Your task to perform on an android device: toggle notification dots Image 0: 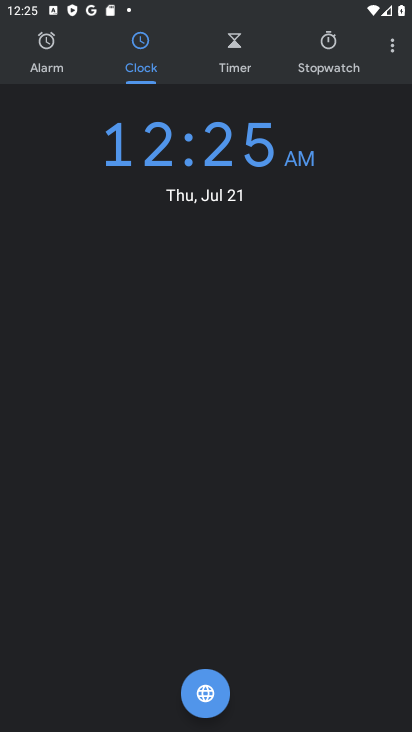
Step 0: press home button
Your task to perform on an android device: toggle notification dots Image 1: 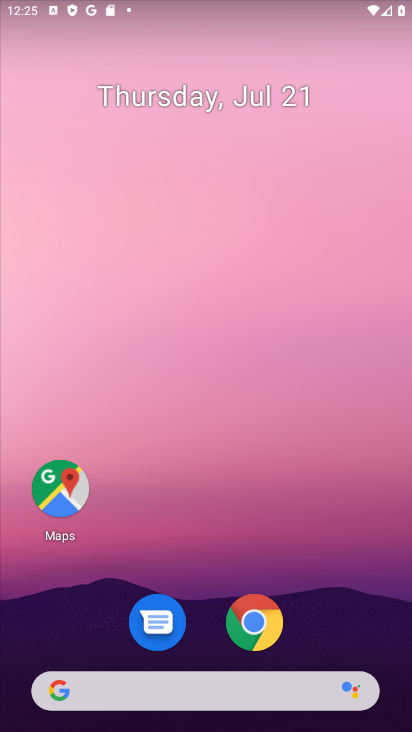
Step 1: drag from (256, 689) to (281, 211)
Your task to perform on an android device: toggle notification dots Image 2: 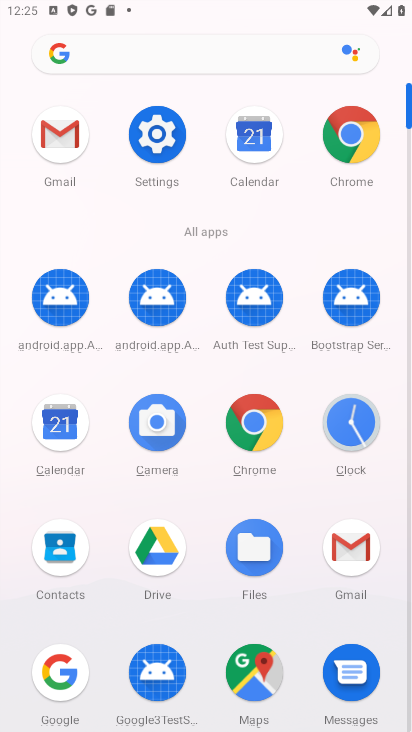
Step 2: drag from (206, 512) to (227, 369)
Your task to perform on an android device: toggle notification dots Image 3: 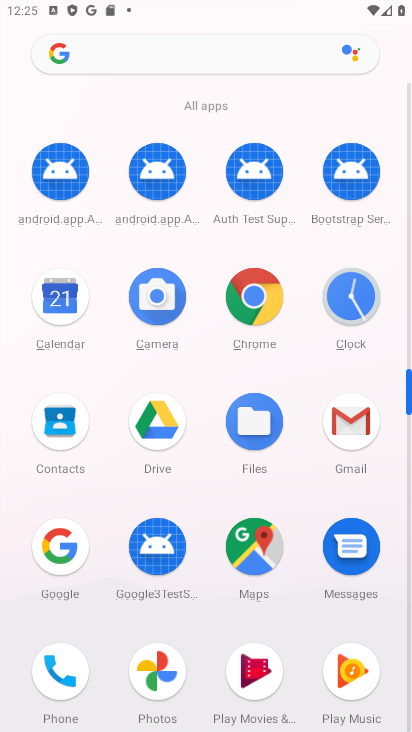
Step 3: drag from (203, 511) to (272, 374)
Your task to perform on an android device: toggle notification dots Image 4: 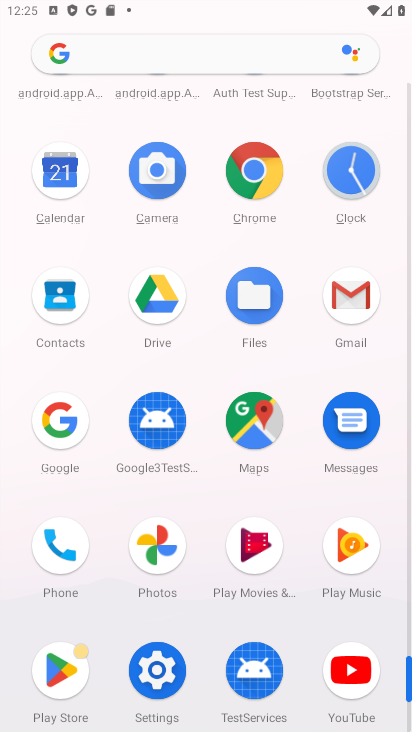
Step 4: drag from (164, 655) to (319, 597)
Your task to perform on an android device: toggle notification dots Image 5: 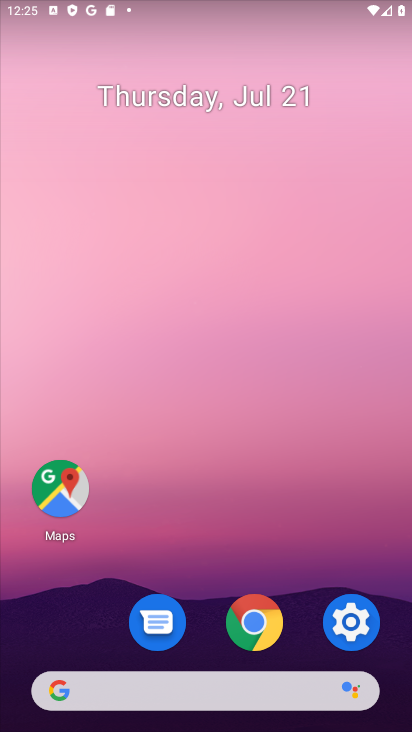
Step 5: click (341, 625)
Your task to perform on an android device: toggle notification dots Image 6: 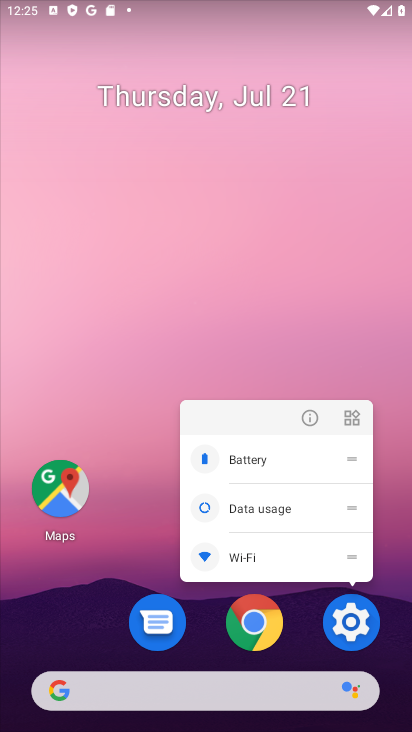
Step 6: click (349, 612)
Your task to perform on an android device: toggle notification dots Image 7: 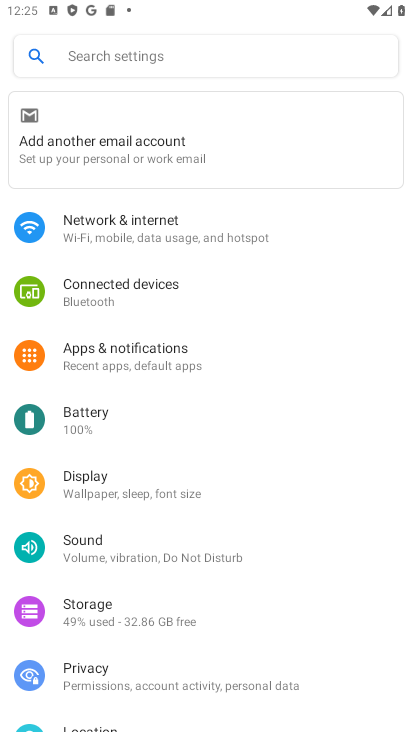
Step 7: click (168, 60)
Your task to perform on an android device: toggle notification dots Image 8: 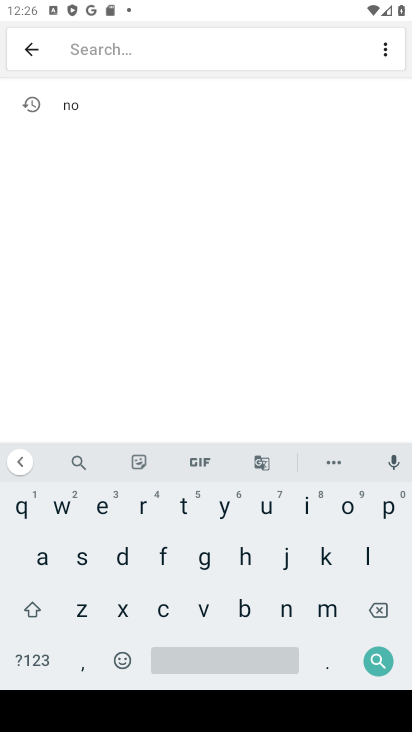
Step 8: click (79, 111)
Your task to perform on an android device: toggle notification dots Image 9: 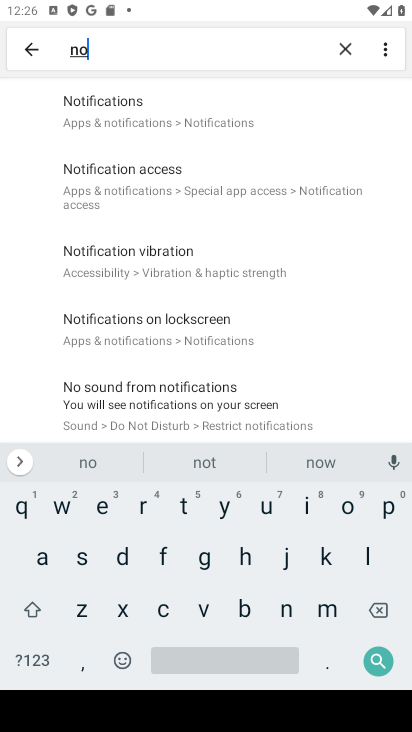
Step 9: click (133, 123)
Your task to perform on an android device: toggle notification dots Image 10: 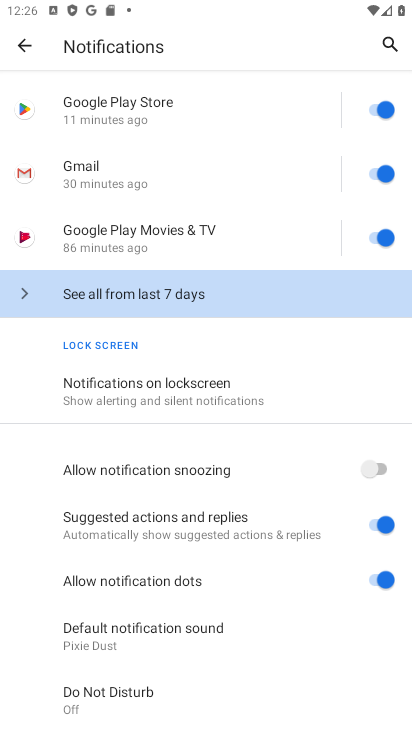
Step 10: click (187, 591)
Your task to perform on an android device: toggle notification dots Image 11: 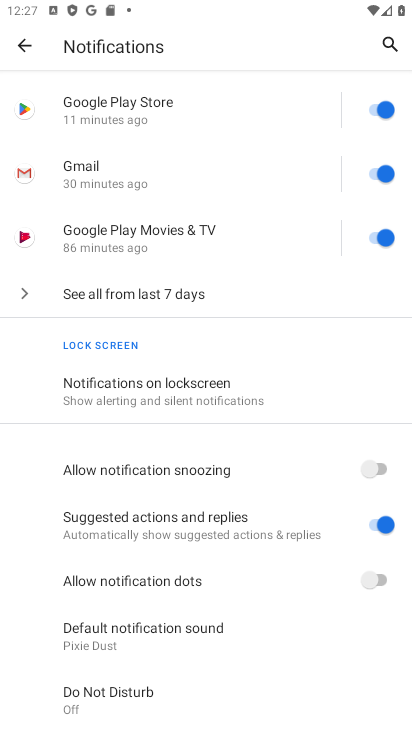
Step 11: task complete